Your task to perform on an android device: Set the phone to "Do not disturb". Image 0: 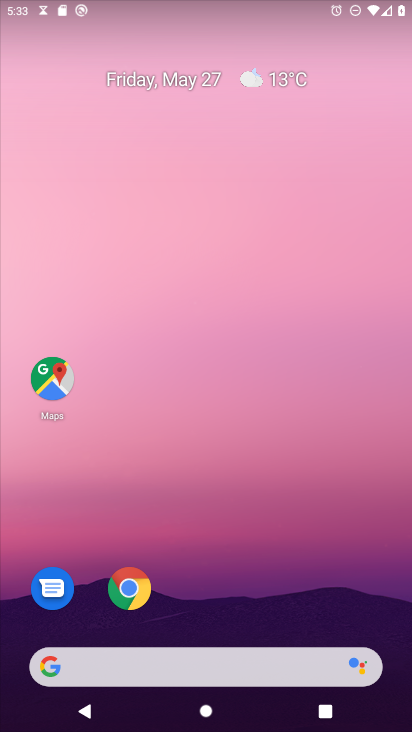
Step 0: drag from (154, 11) to (186, 513)
Your task to perform on an android device: Set the phone to "Do not disturb". Image 1: 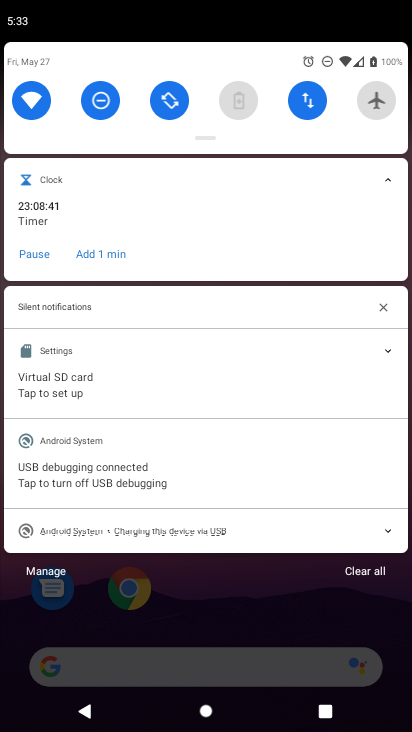
Step 1: task complete